Your task to perform on an android device: change keyboard looks Image 0: 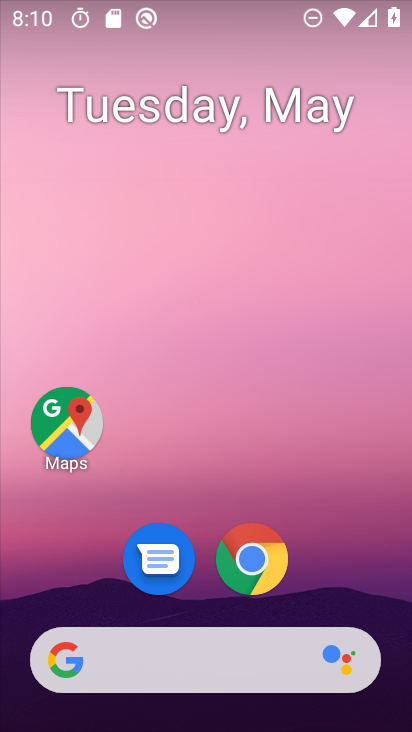
Step 0: drag from (405, 652) to (319, 71)
Your task to perform on an android device: change keyboard looks Image 1: 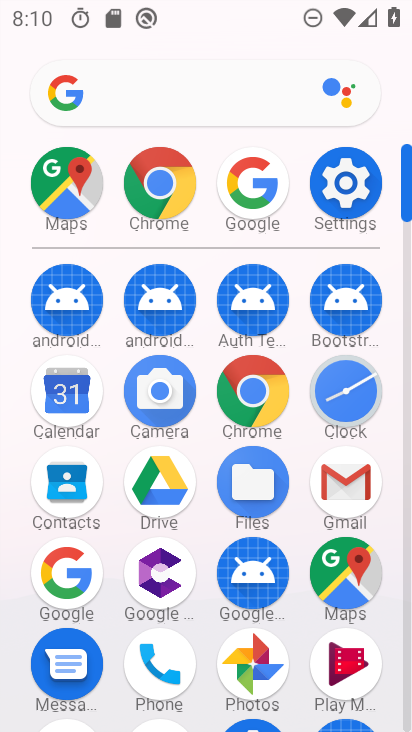
Step 1: click (340, 203)
Your task to perform on an android device: change keyboard looks Image 2: 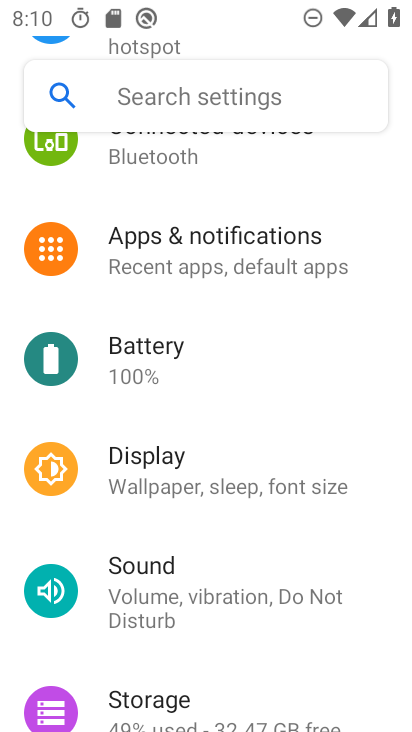
Step 2: drag from (193, 636) to (209, 194)
Your task to perform on an android device: change keyboard looks Image 3: 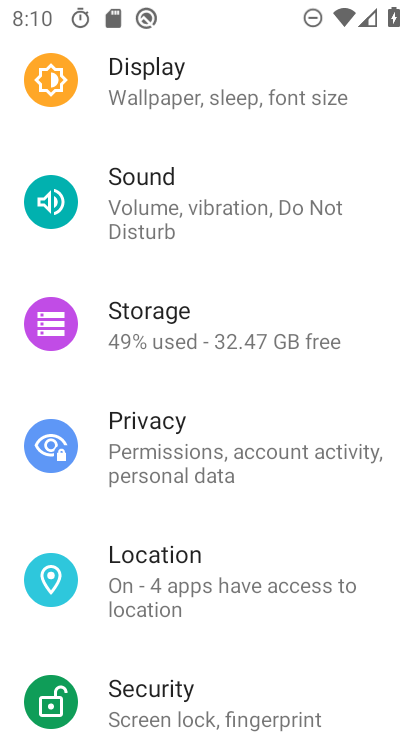
Step 3: drag from (174, 625) to (181, 126)
Your task to perform on an android device: change keyboard looks Image 4: 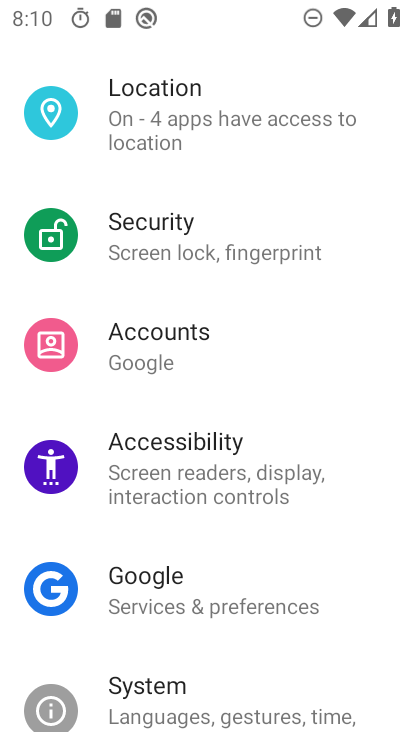
Step 4: drag from (176, 693) to (254, 91)
Your task to perform on an android device: change keyboard looks Image 5: 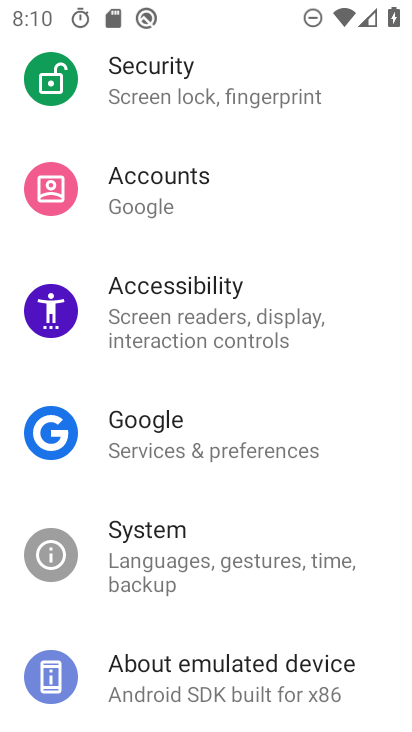
Step 5: click (197, 679)
Your task to perform on an android device: change keyboard looks Image 6: 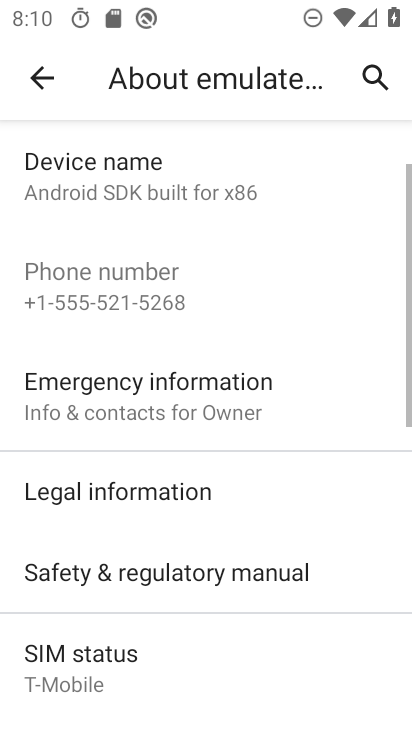
Step 6: press back button
Your task to perform on an android device: change keyboard looks Image 7: 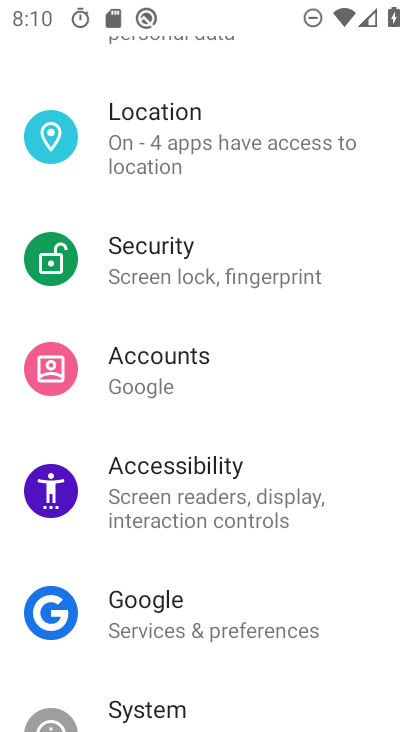
Step 7: click (154, 706)
Your task to perform on an android device: change keyboard looks Image 8: 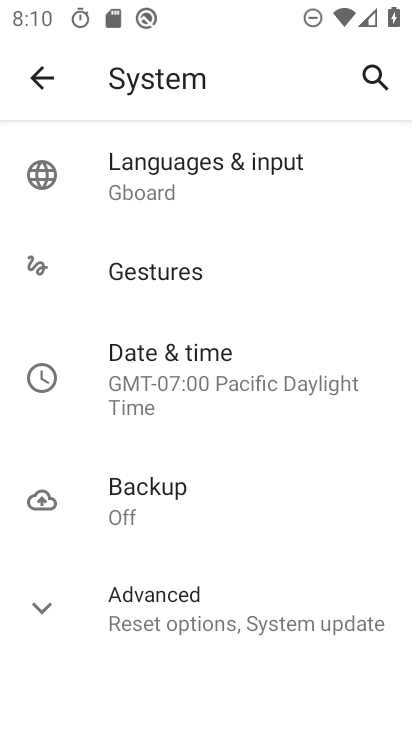
Step 8: click (220, 203)
Your task to perform on an android device: change keyboard looks Image 9: 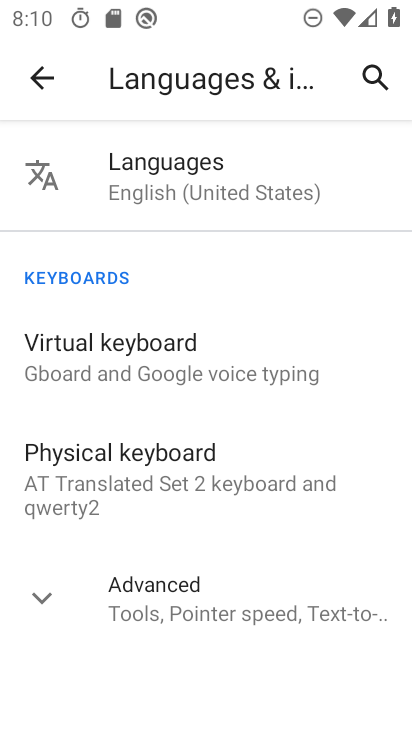
Step 9: click (156, 366)
Your task to perform on an android device: change keyboard looks Image 10: 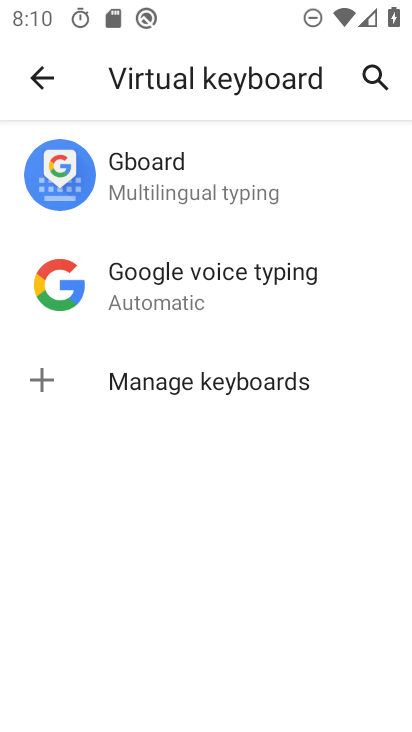
Step 10: click (140, 200)
Your task to perform on an android device: change keyboard looks Image 11: 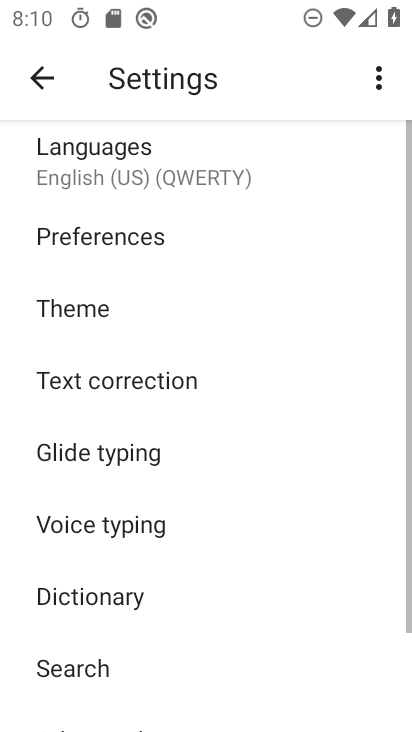
Step 11: click (149, 292)
Your task to perform on an android device: change keyboard looks Image 12: 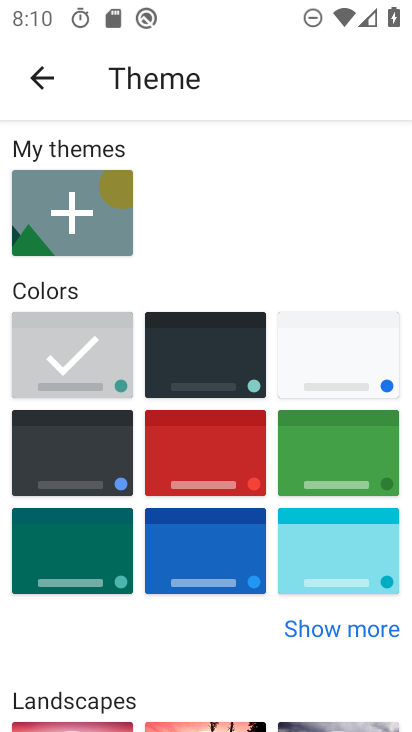
Step 12: click (192, 345)
Your task to perform on an android device: change keyboard looks Image 13: 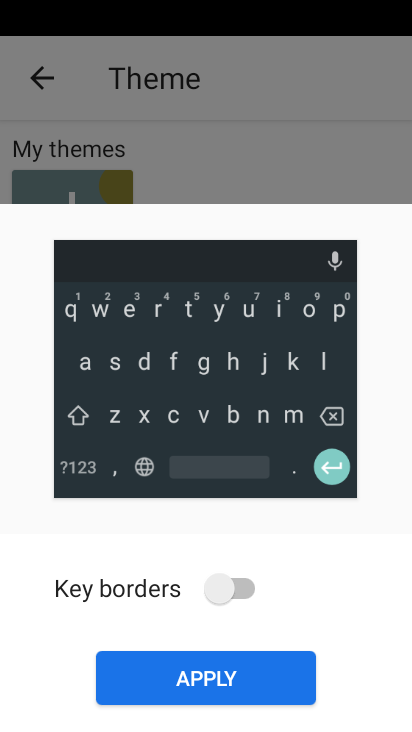
Step 13: click (236, 672)
Your task to perform on an android device: change keyboard looks Image 14: 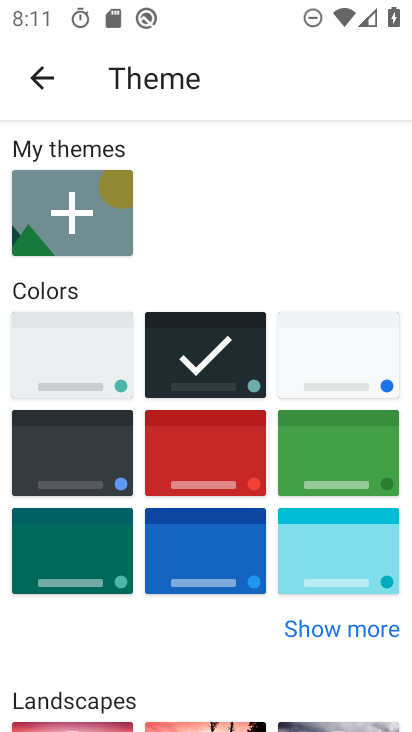
Step 14: task complete